Your task to perform on an android device: toggle airplane mode Image 0: 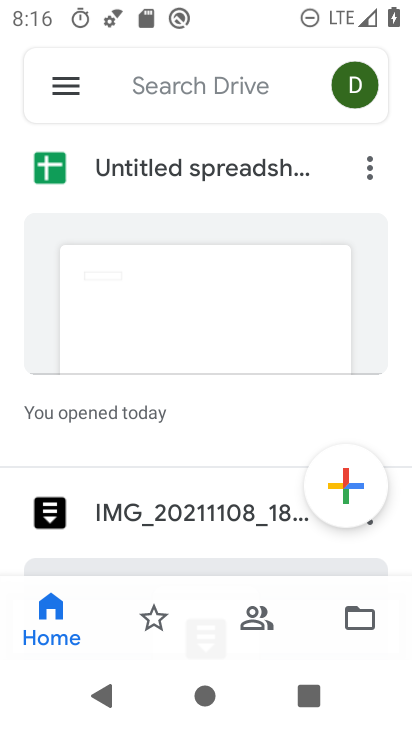
Step 0: press home button
Your task to perform on an android device: toggle airplane mode Image 1: 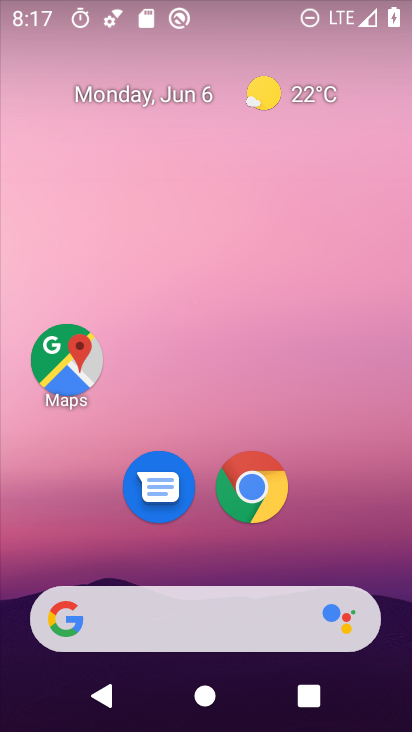
Step 1: drag from (391, 505) to (323, 191)
Your task to perform on an android device: toggle airplane mode Image 2: 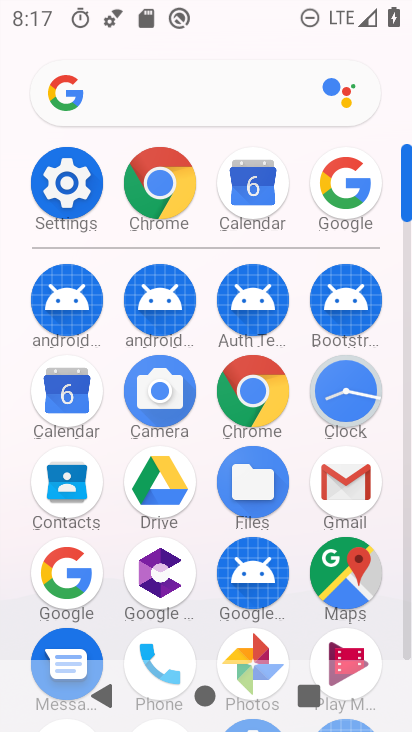
Step 2: drag from (221, 5) to (249, 598)
Your task to perform on an android device: toggle airplane mode Image 3: 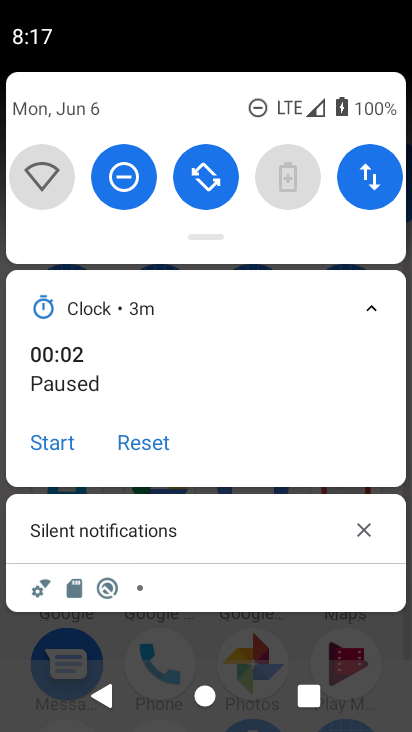
Step 3: drag from (285, 227) to (262, 637)
Your task to perform on an android device: toggle airplane mode Image 4: 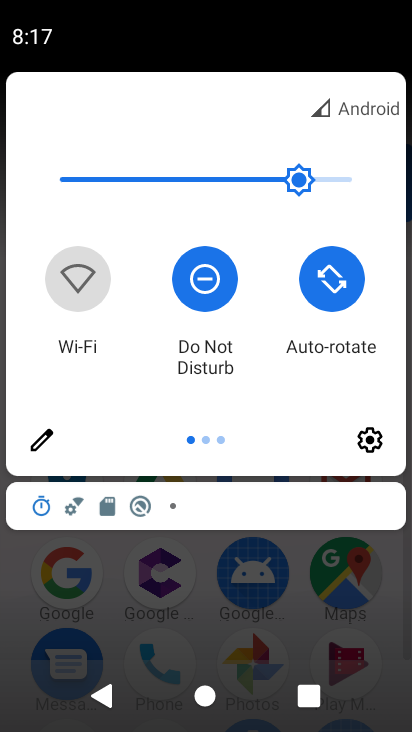
Step 4: drag from (311, 372) to (11, 378)
Your task to perform on an android device: toggle airplane mode Image 5: 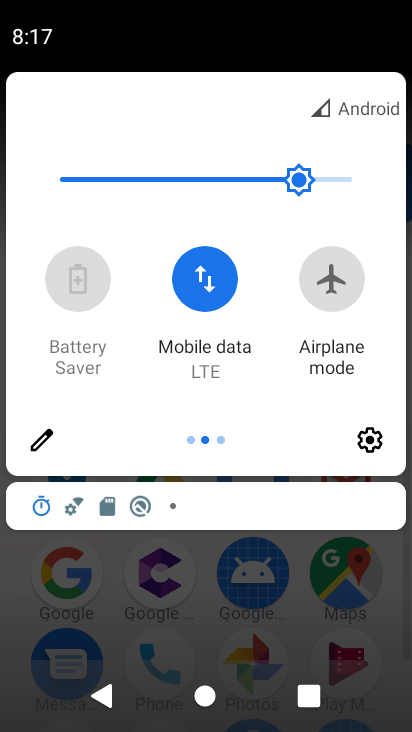
Step 5: click (347, 284)
Your task to perform on an android device: toggle airplane mode Image 6: 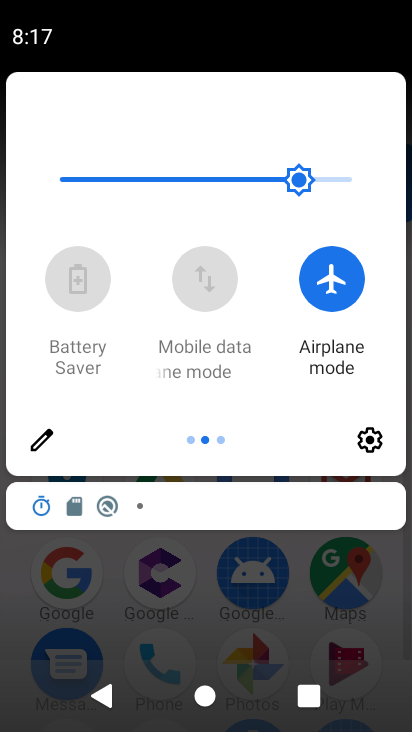
Step 6: task complete